Your task to perform on an android device: Search for vegetarian restaurants on Maps Image 0: 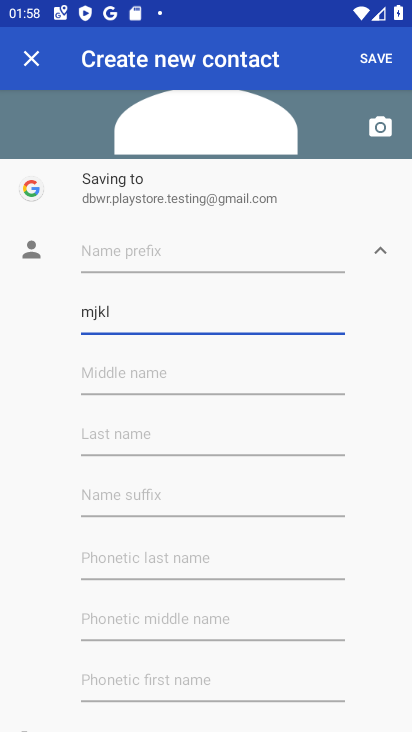
Step 0: press home button
Your task to perform on an android device: Search for vegetarian restaurants on Maps Image 1: 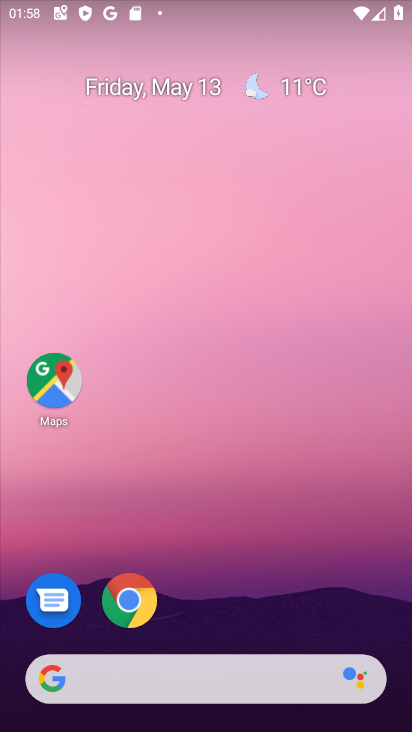
Step 1: drag from (149, 638) to (198, 266)
Your task to perform on an android device: Search for vegetarian restaurants on Maps Image 2: 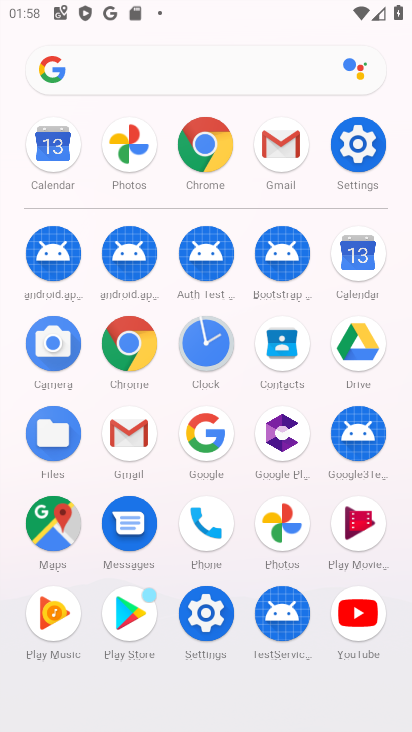
Step 2: click (54, 525)
Your task to perform on an android device: Search for vegetarian restaurants on Maps Image 3: 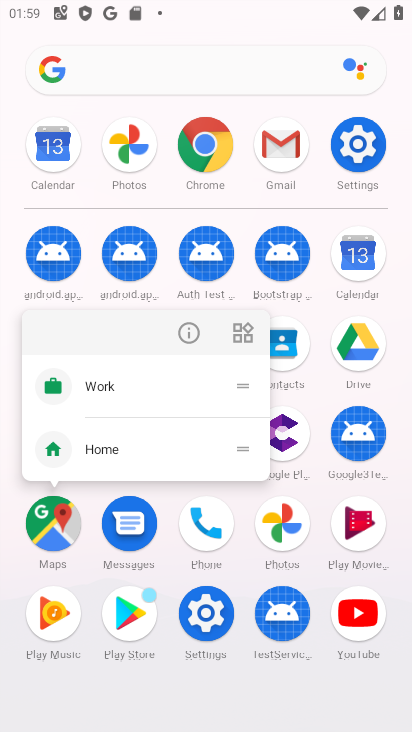
Step 3: click (189, 332)
Your task to perform on an android device: Search for vegetarian restaurants on Maps Image 4: 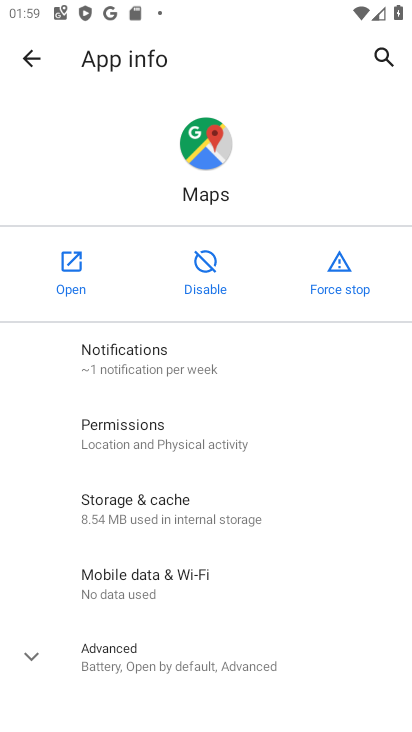
Step 4: click (71, 276)
Your task to perform on an android device: Search for vegetarian restaurants on Maps Image 5: 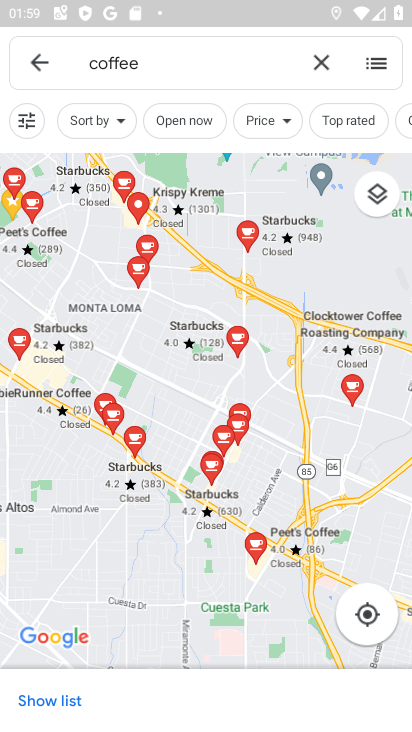
Step 5: click (318, 64)
Your task to perform on an android device: Search for vegetarian restaurants on Maps Image 6: 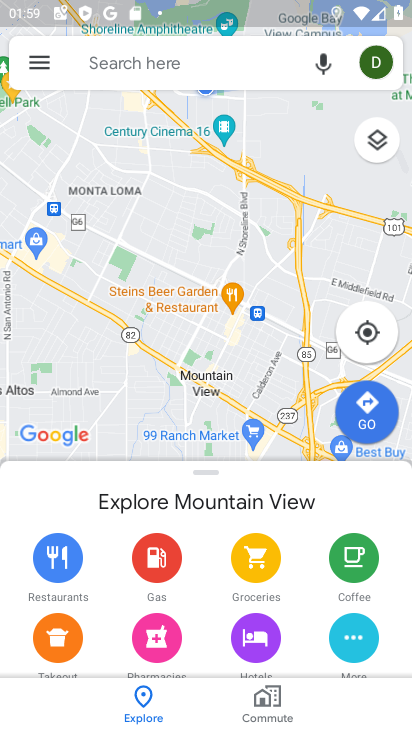
Step 6: click (161, 70)
Your task to perform on an android device: Search for vegetarian restaurants on Maps Image 7: 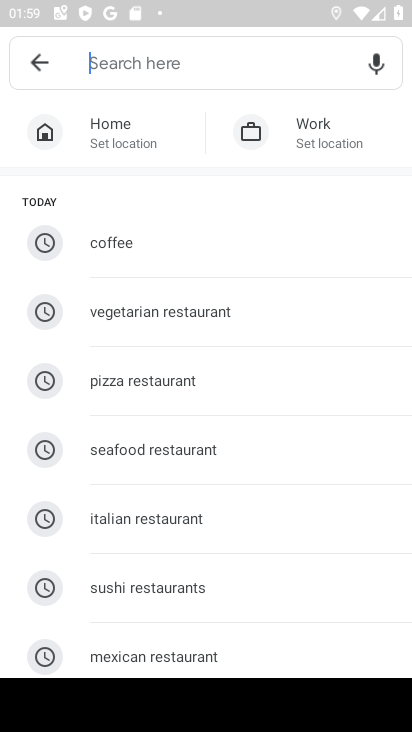
Step 7: click (164, 310)
Your task to perform on an android device: Search for vegetarian restaurants on Maps Image 8: 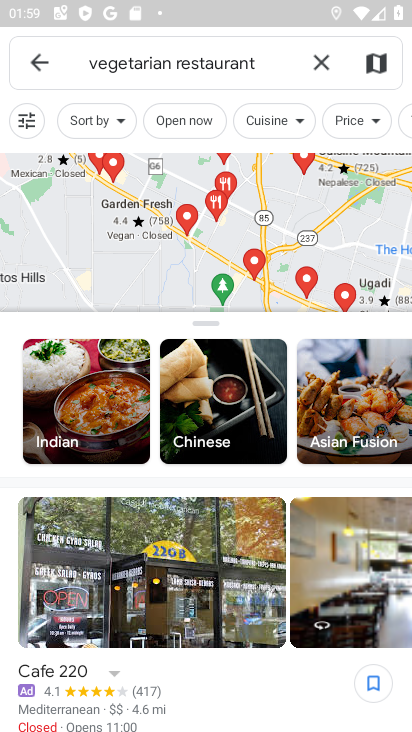
Step 8: task complete